Your task to perform on an android device: Open ESPN.com Image 0: 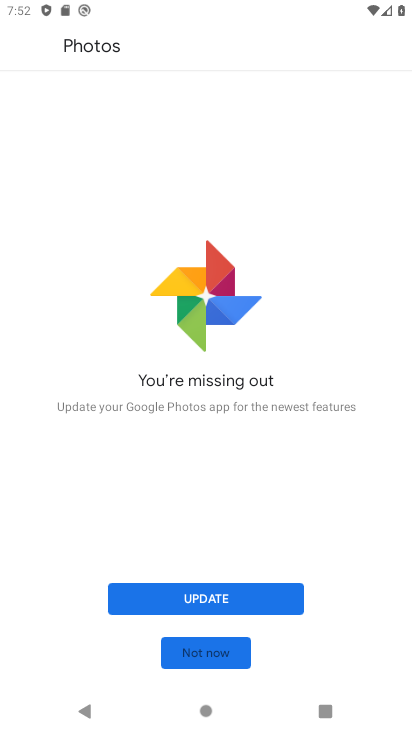
Step 0: click (231, 597)
Your task to perform on an android device: Open ESPN.com Image 1: 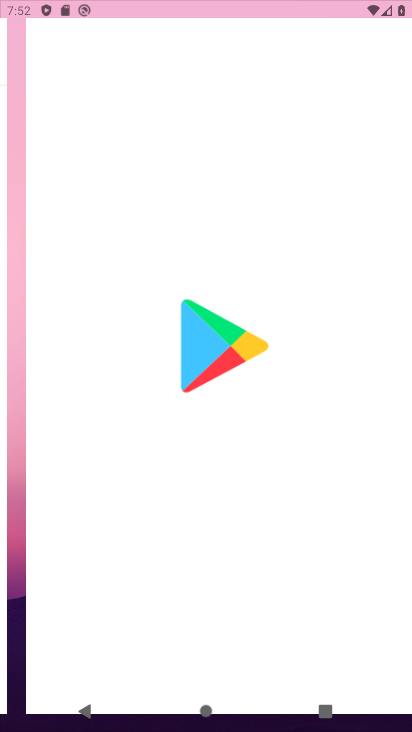
Step 1: press home button
Your task to perform on an android device: Open ESPN.com Image 2: 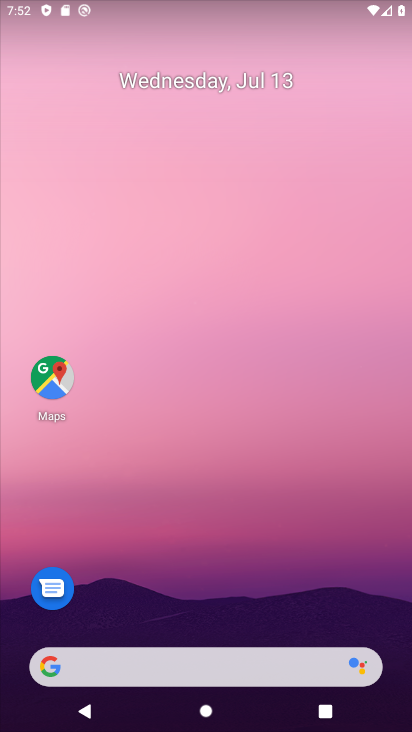
Step 2: click (230, 674)
Your task to perform on an android device: Open ESPN.com Image 3: 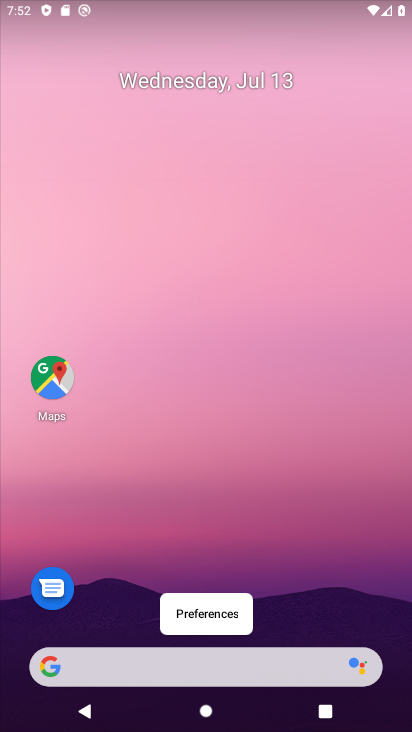
Step 3: type "espn.com"
Your task to perform on an android device: Open ESPN.com Image 4: 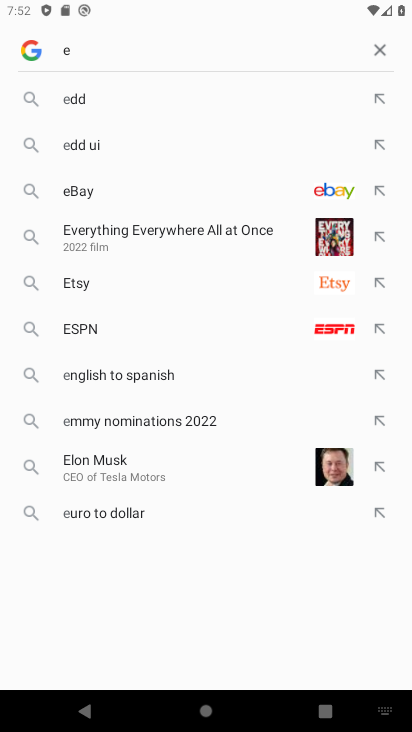
Step 4: click (340, 322)
Your task to perform on an android device: Open ESPN.com Image 5: 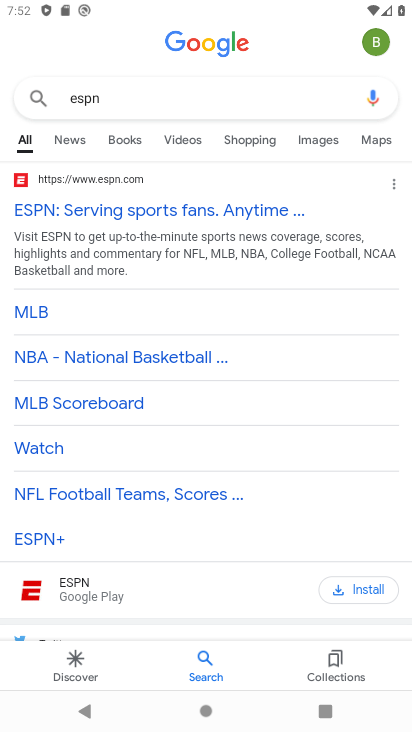
Step 5: click (70, 181)
Your task to perform on an android device: Open ESPN.com Image 6: 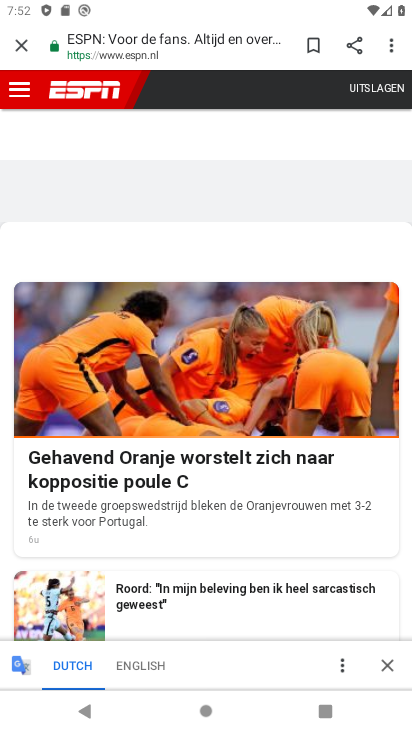
Step 6: task complete